Your task to perform on an android device: Go to Maps Image 0: 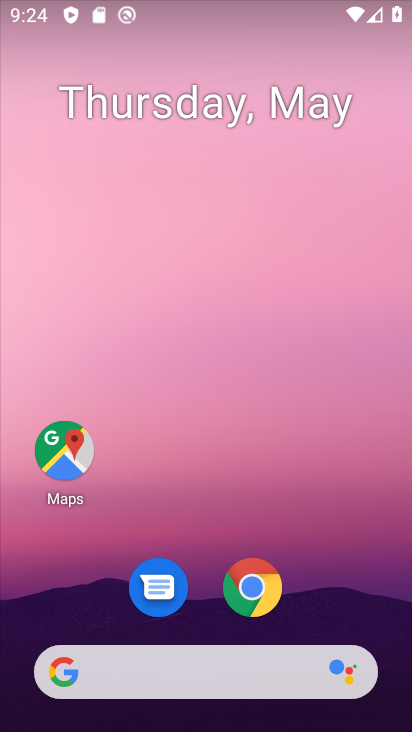
Step 0: click (63, 445)
Your task to perform on an android device: Go to Maps Image 1: 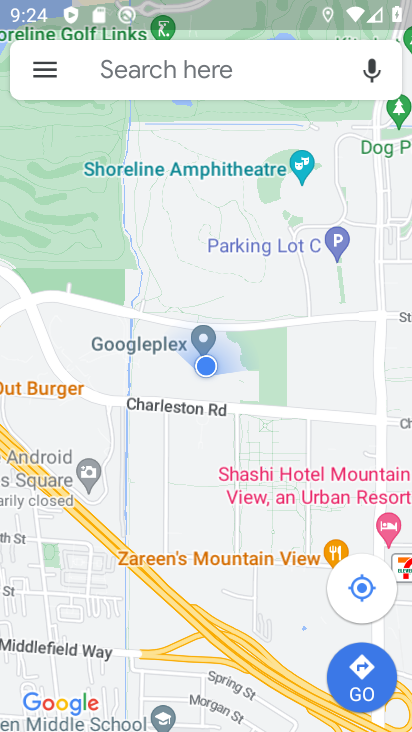
Step 1: task complete